Your task to perform on an android device: Open calendar and show me the first week of next month Image 0: 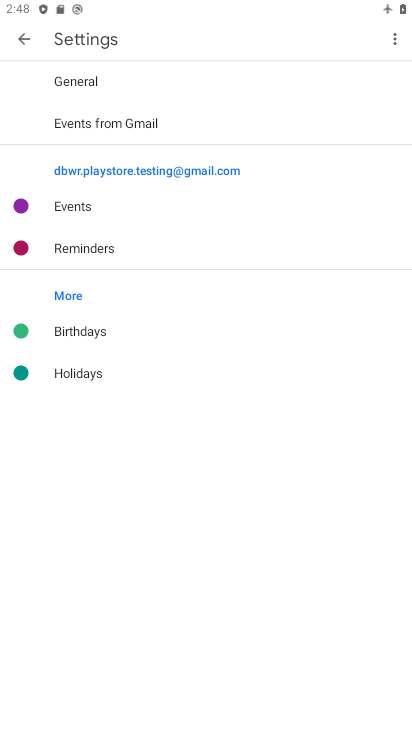
Step 0: click (12, 37)
Your task to perform on an android device: Open calendar and show me the first week of next month Image 1: 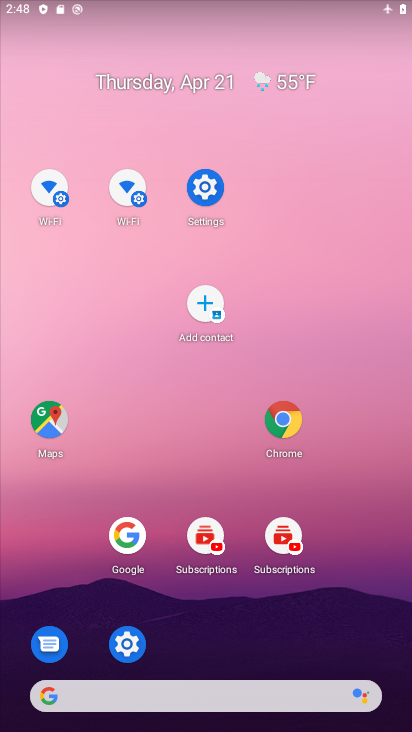
Step 1: drag from (290, 502) to (245, 183)
Your task to perform on an android device: Open calendar and show me the first week of next month Image 2: 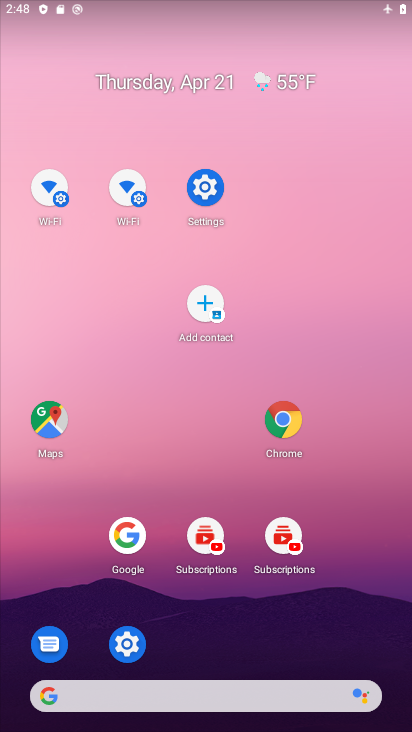
Step 2: drag from (254, 547) to (108, 146)
Your task to perform on an android device: Open calendar and show me the first week of next month Image 3: 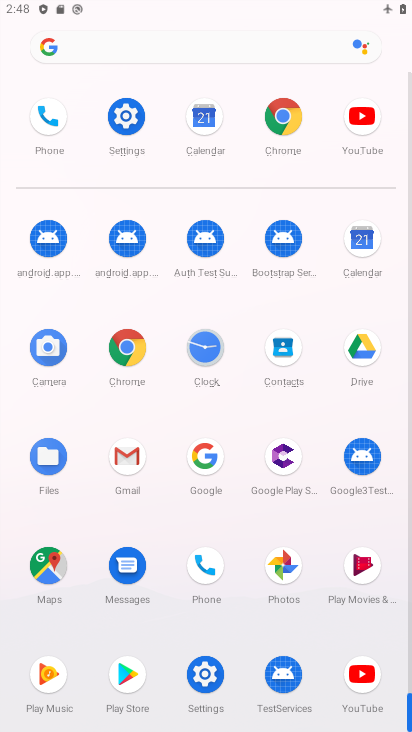
Step 3: drag from (220, 550) to (156, 84)
Your task to perform on an android device: Open calendar and show me the first week of next month Image 4: 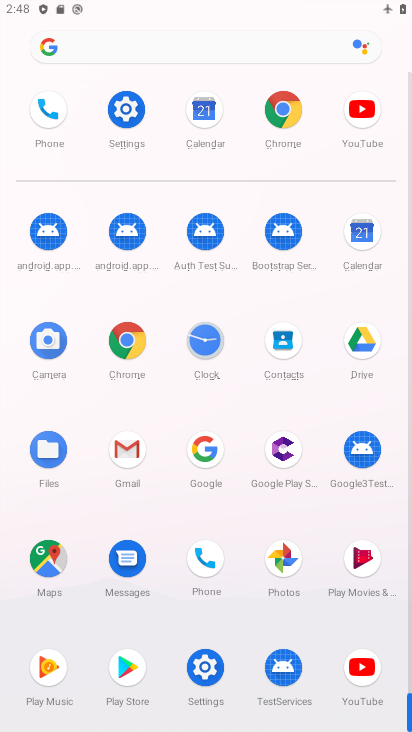
Step 4: click (118, 114)
Your task to perform on an android device: Open calendar and show me the first week of next month Image 5: 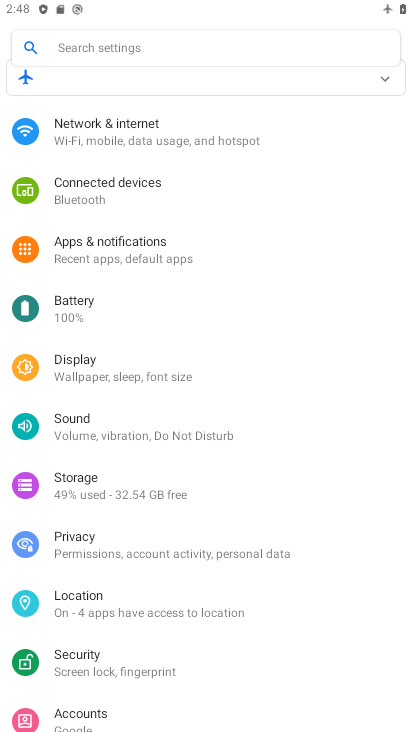
Step 5: click (127, 246)
Your task to perform on an android device: Open calendar and show me the first week of next month Image 6: 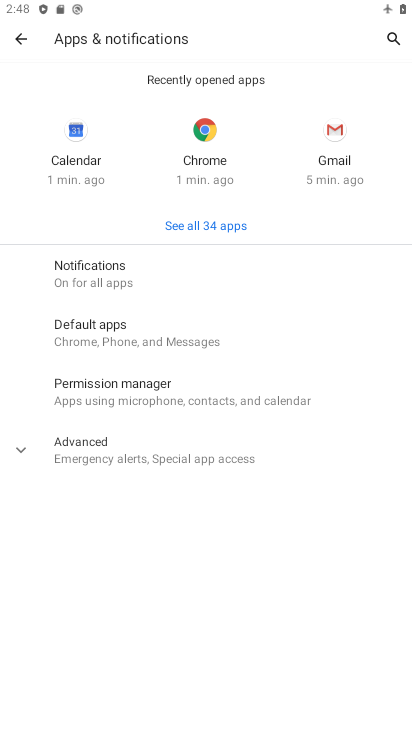
Step 6: click (23, 34)
Your task to perform on an android device: Open calendar and show me the first week of next month Image 7: 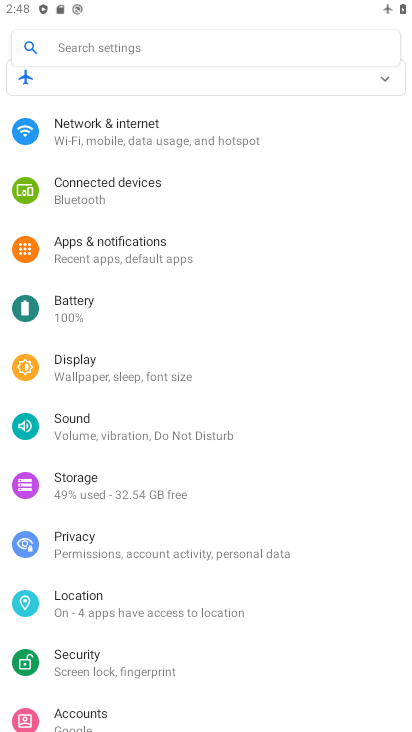
Step 7: press home button
Your task to perform on an android device: Open calendar and show me the first week of next month Image 8: 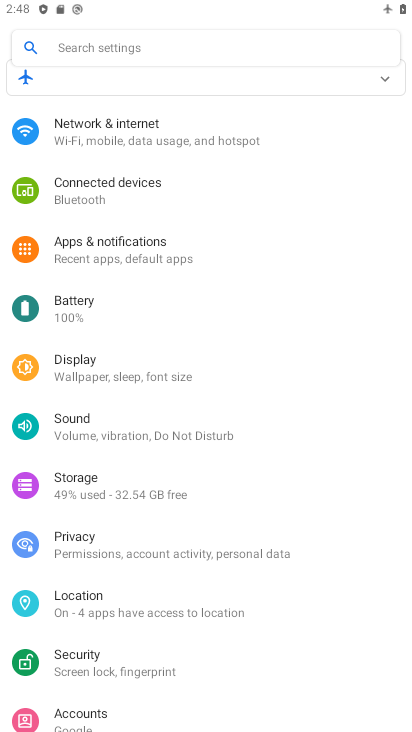
Step 8: press home button
Your task to perform on an android device: Open calendar and show me the first week of next month Image 9: 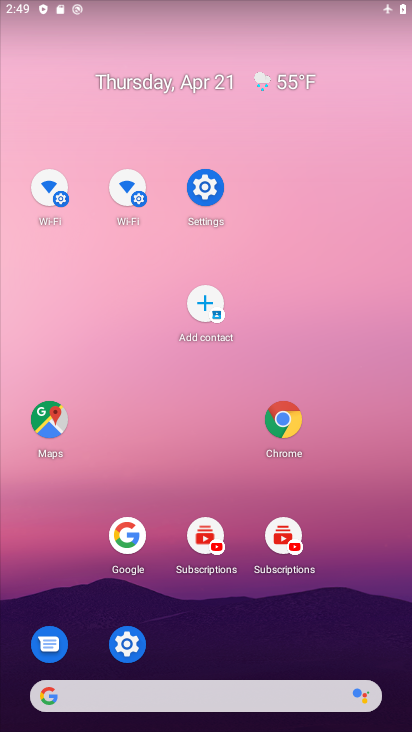
Step 9: drag from (295, 661) to (229, 228)
Your task to perform on an android device: Open calendar and show me the first week of next month Image 10: 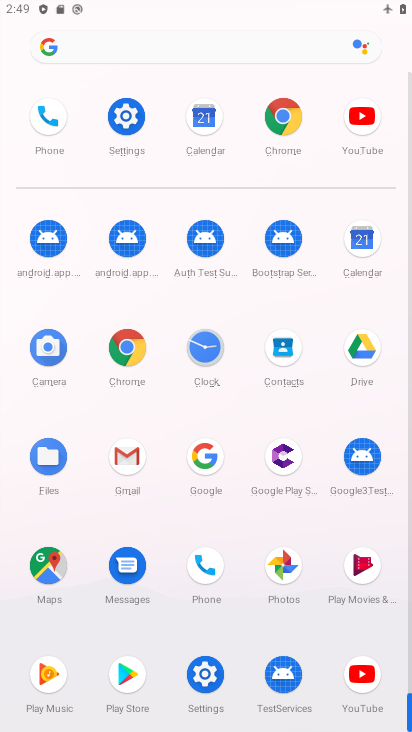
Step 10: click (361, 241)
Your task to perform on an android device: Open calendar and show me the first week of next month Image 11: 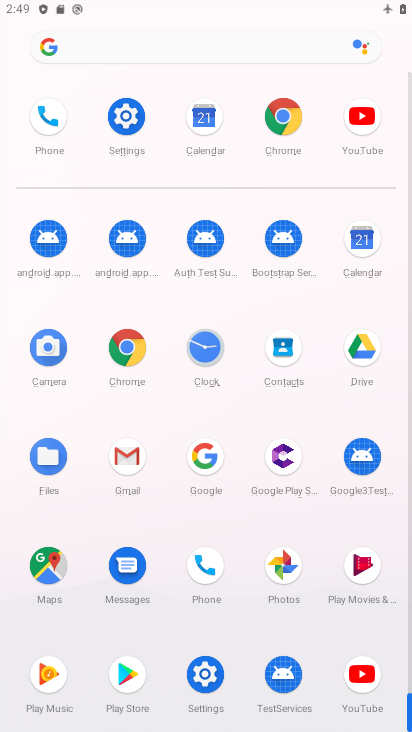
Step 11: click (361, 241)
Your task to perform on an android device: Open calendar and show me the first week of next month Image 12: 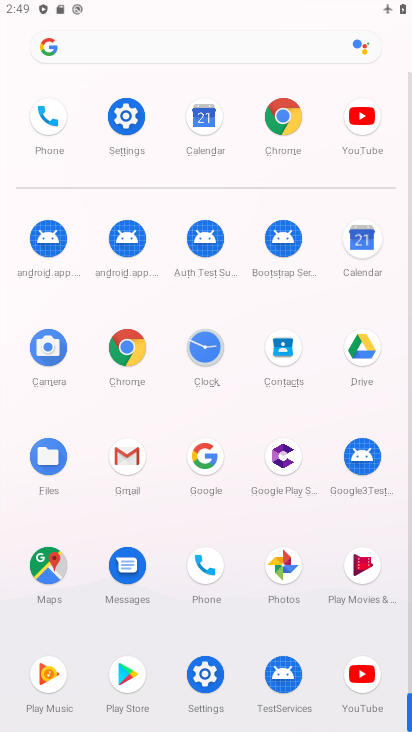
Step 12: click (360, 240)
Your task to perform on an android device: Open calendar and show me the first week of next month Image 13: 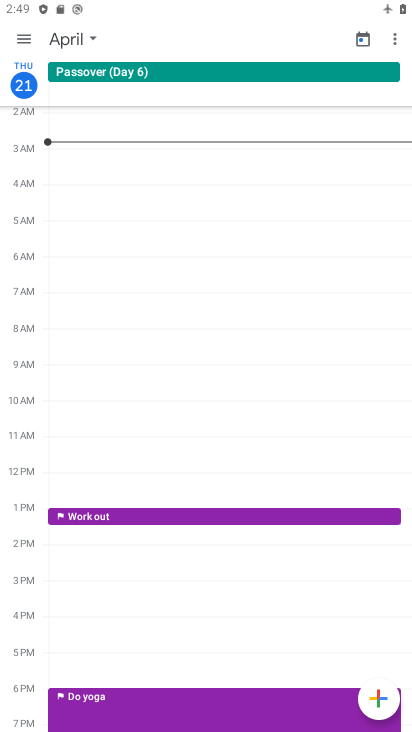
Step 13: press home button
Your task to perform on an android device: Open calendar and show me the first week of next month Image 14: 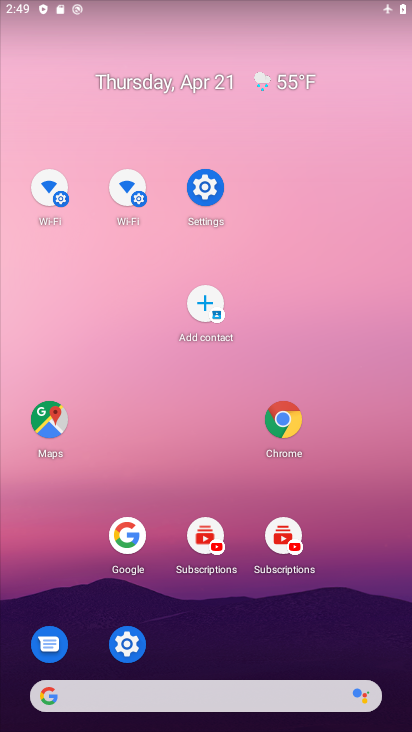
Step 14: drag from (372, 661) to (137, 89)
Your task to perform on an android device: Open calendar and show me the first week of next month Image 15: 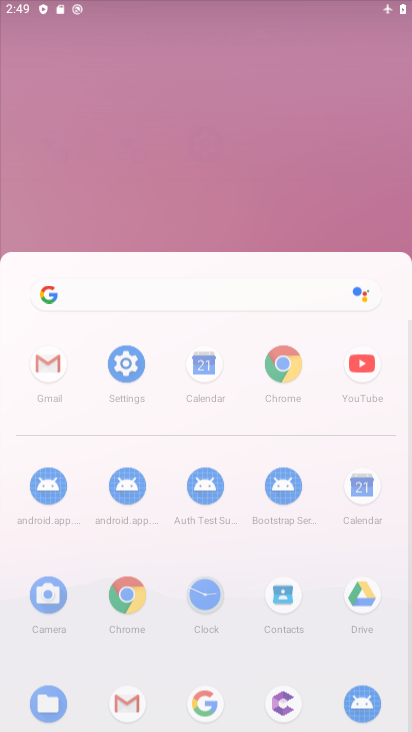
Step 15: drag from (309, 446) to (147, 58)
Your task to perform on an android device: Open calendar and show me the first week of next month Image 16: 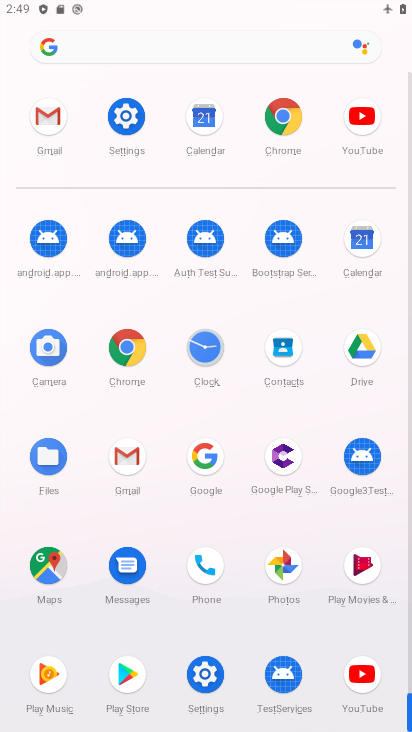
Step 16: click (208, 123)
Your task to perform on an android device: Open calendar and show me the first week of next month Image 17: 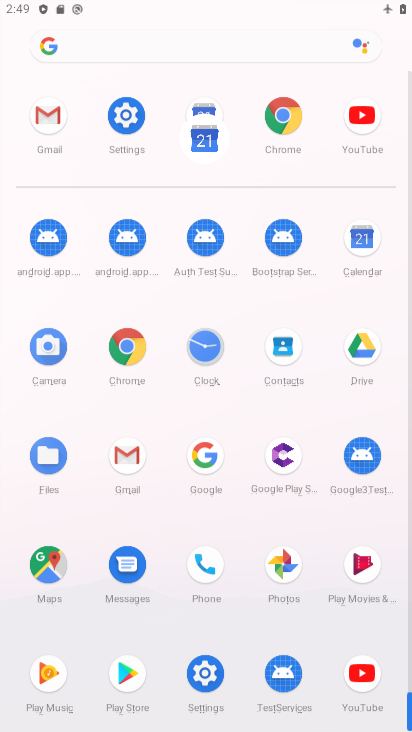
Step 17: click (208, 118)
Your task to perform on an android device: Open calendar and show me the first week of next month Image 18: 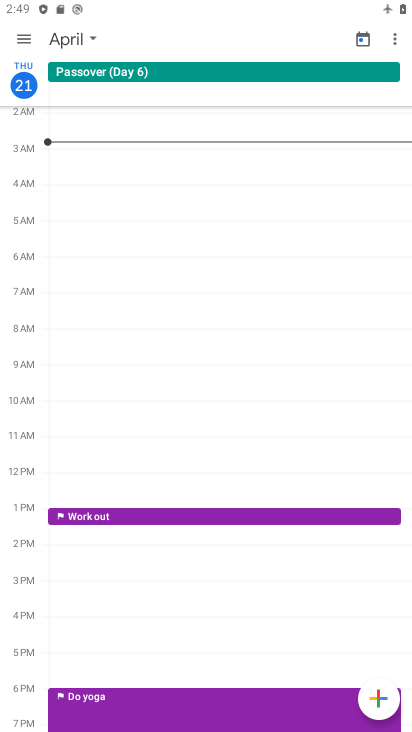
Step 18: click (93, 43)
Your task to perform on an android device: Open calendar and show me the first week of next month Image 19: 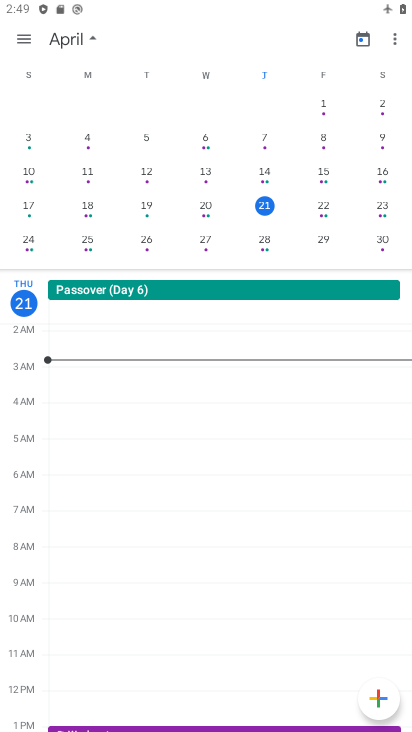
Step 19: click (9, 204)
Your task to perform on an android device: Open calendar and show me the first week of next month Image 20: 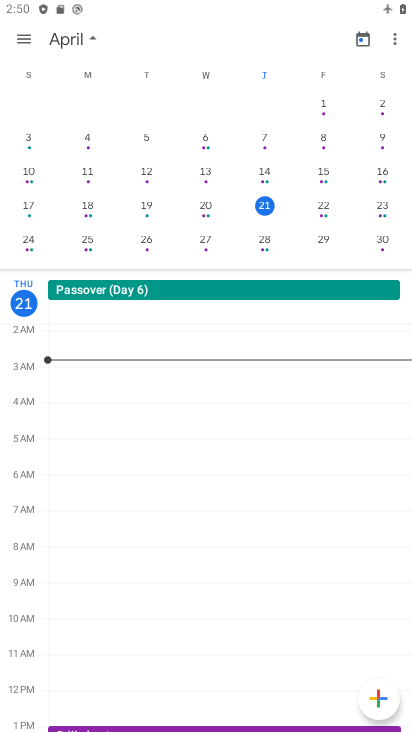
Step 20: drag from (128, 160) to (18, 143)
Your task to perform on an android device: Open calendar and show me the first week of next month Image 21: 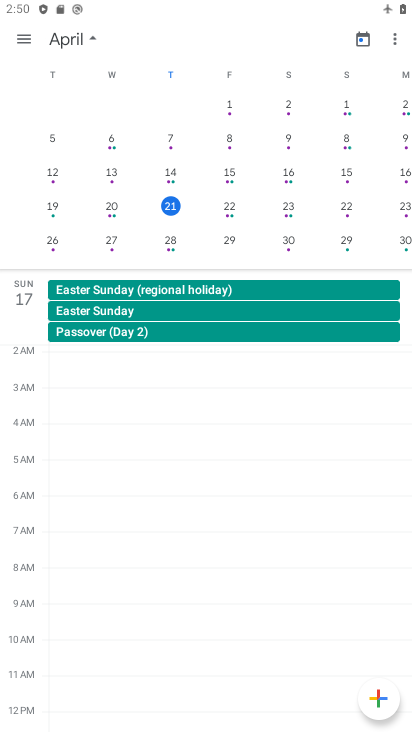
Step 21: drag from (260, 204) to (13, 224)
Your task to perform on an android device: Open calendar and show me the first week of next month Image 22: 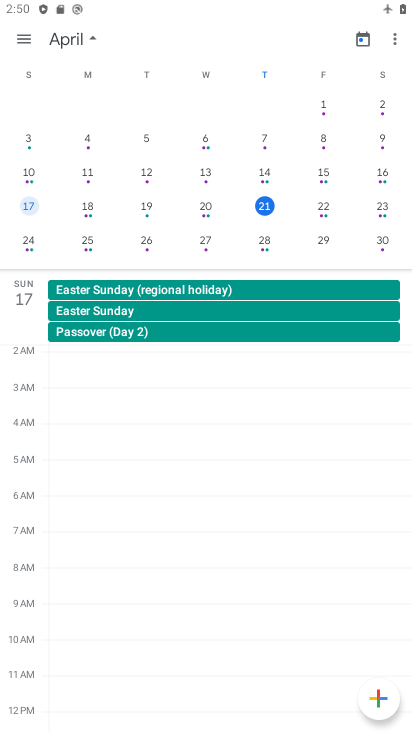
Step 22: drag from (245, 202) to (2, 173)
Your task to perform on an android device: Open calendar and show me the first week of next month Image 23: 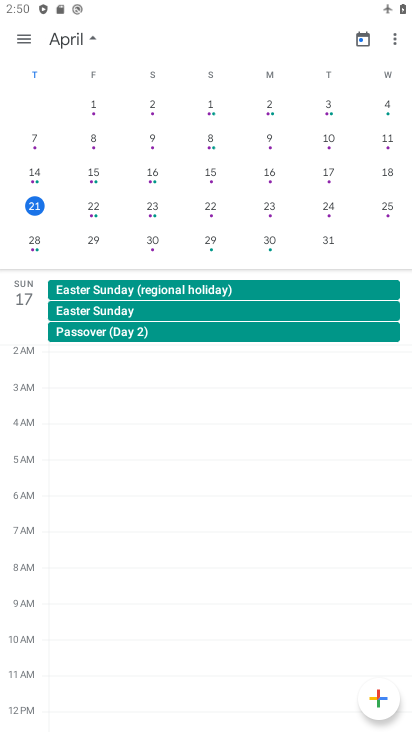
Step 23: drag from (199, 190) to (30, 187)
Your task to perform on an android device: Open calendar and show me the first week of next month Image 24: 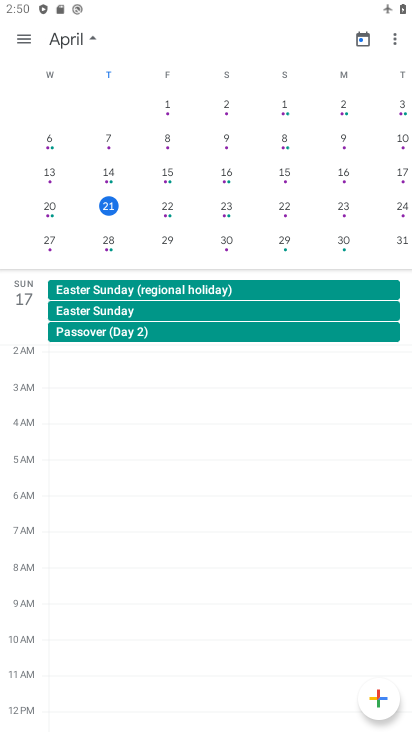
Step 24: drag from (95, 200) to (27, 205)
Your task to perform on an android device: Open calendar and show me the first week of next month Image 25: 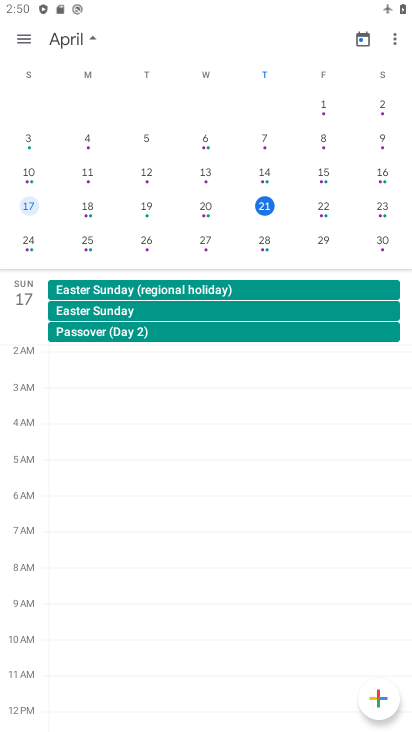
Step 25: drag from (172, 210) to (17, 175)
Your task to perform on an android device: Open calendar and show me the first week of next month Image 26: 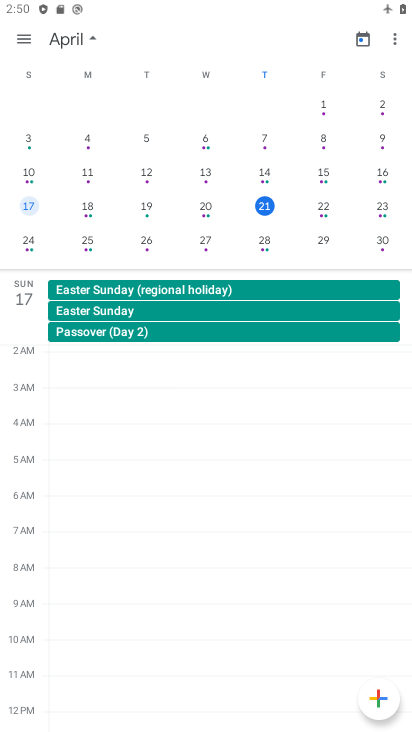
Step 26: click (63, 172)
Your task to perform on an android device: Open calendar and show me the first week of next month Image 27: 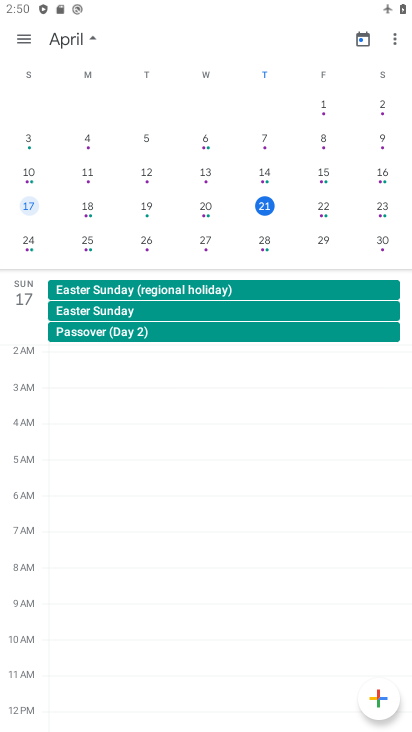
Step 27: drag from (252, 194) to (5, 160)
Your task to perform on an android device: Open calendar and show me the first week of next month Image 28: 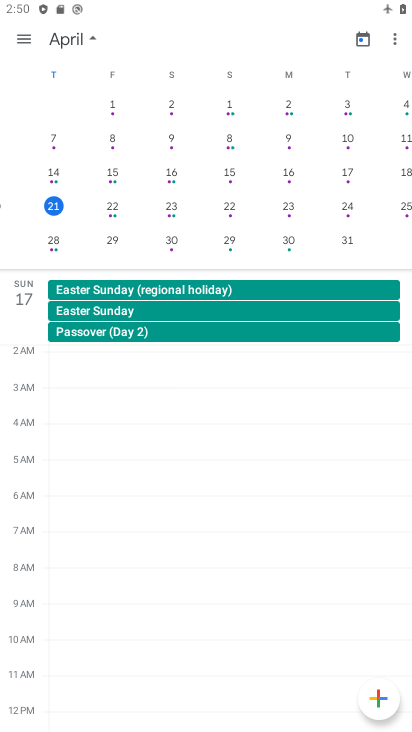
Step 28: drag from (253, 199) to (35, 190)
Your task to perform on an android device: Open calendar and show me the first week of next month Image 29: 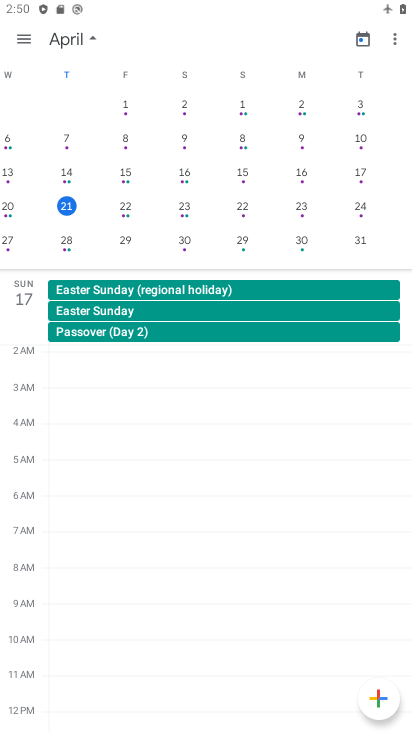
Step 29: drag from (205, 209) to (9, 197)
Your task to perform on an android device: Open calendar and show me the first week of next month Image 30: 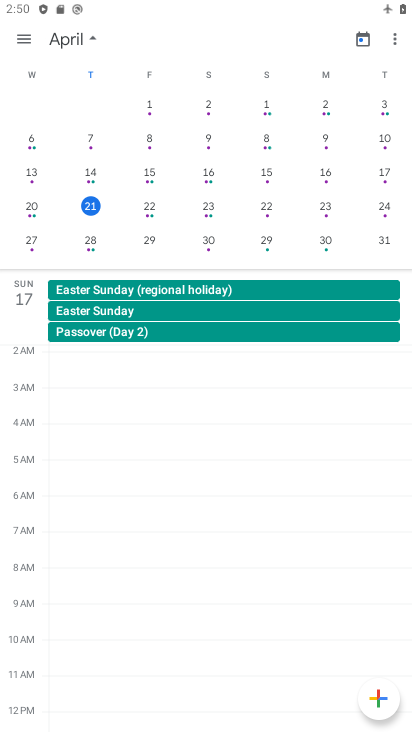
Step 30: drag from (87, 180) to (1, 156)
Your task to perform on an android device: Open calendar and show me the first week of next month Image 31: 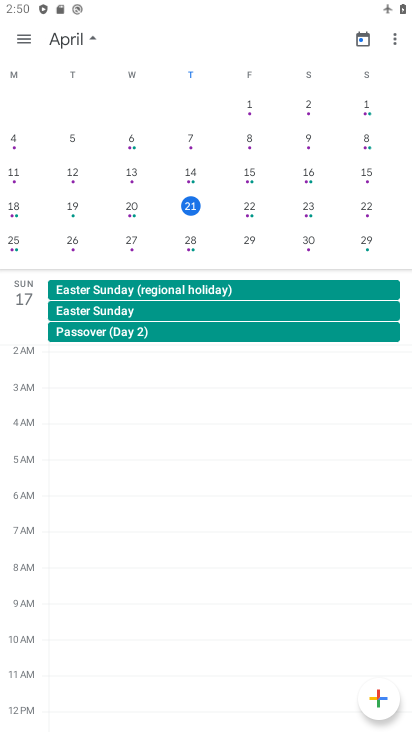
Step 31: drag from (119, 210) to (42, 202)
Your task to perform on an android device: Open calendar and show me the first week of next month Image 32: 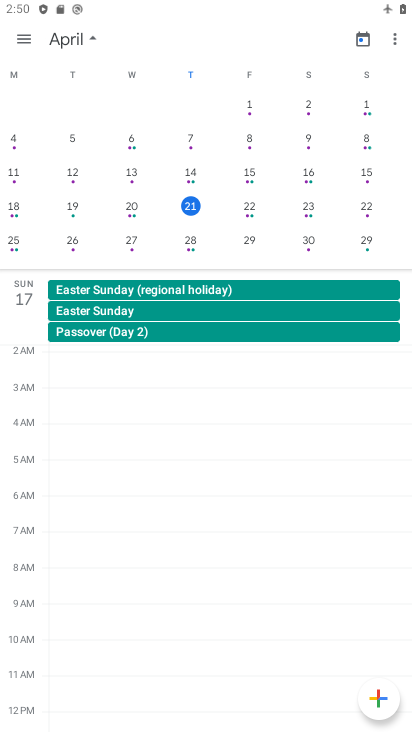
Step 32: drag from (192, 178) to (11, 171)
Your task to perform on an android device: Open calendar and show me the first week of next month Image 33: 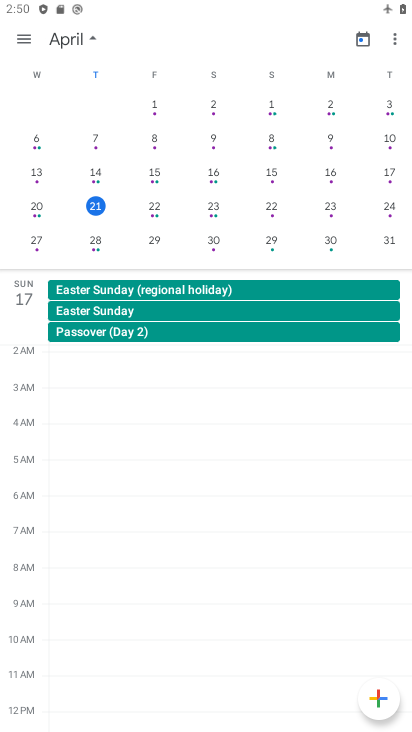
Step 33: click (42, 174)
Your task to perform on an android device: Open calendar and show me the first week of next month Image 34: 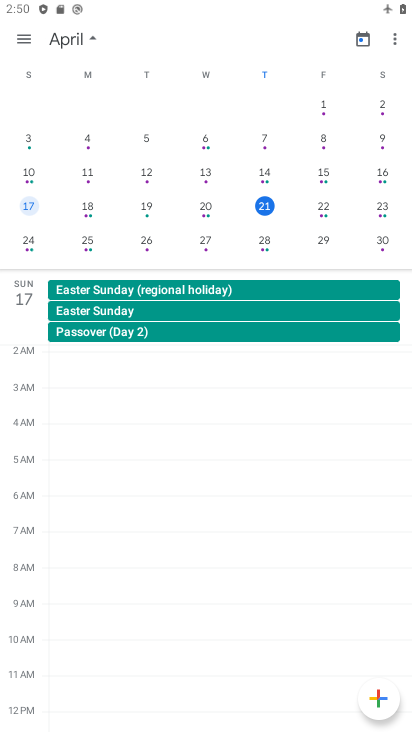
Step 34: drag from (110, 220) to (74, 213)
Your task to perform on an android device: Open calendar and show me the first week of next month Image 35: 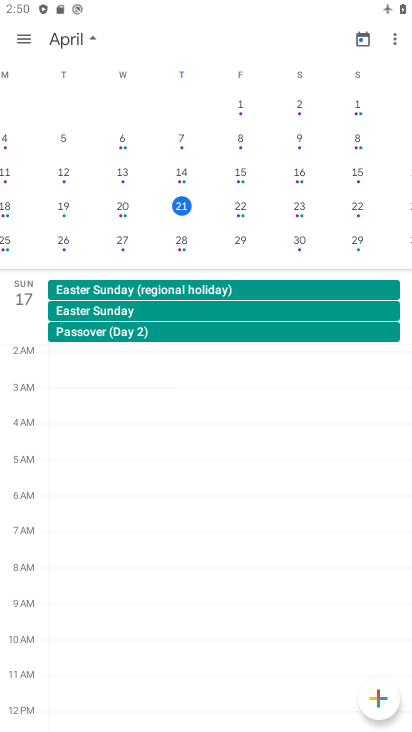
Step 35: drag from (273, 210) to (36, 183)
Your task to perform on an android device: Open calendar and show me the first week of next month Image 36: 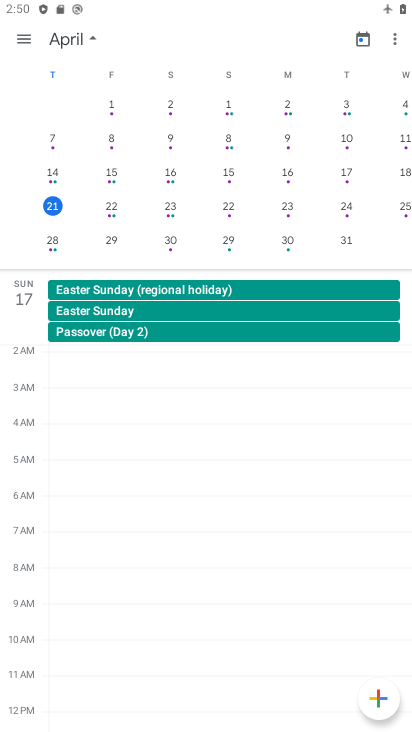
Step 36: drag from (115, 197) to (11, 193)
Your task to perform on an android device: Open calendar and show me the first week of next month Image 37: 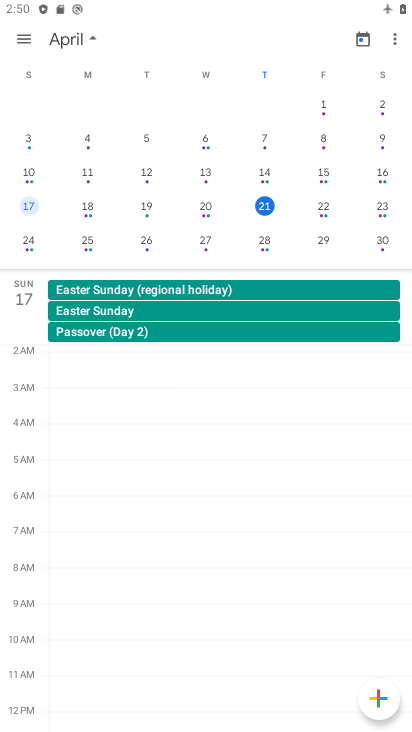
Step 37: drag from (149, 175) to (5, 169)
Your task to perform on an android device: Open calendar and show me the first week of next month Image 38: 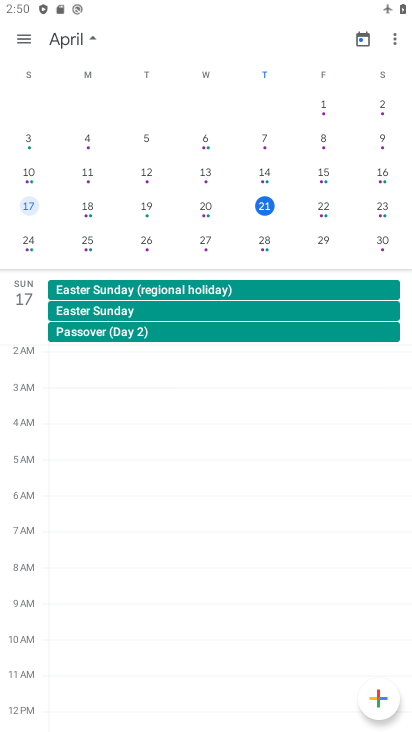
Step 38: drag from (235, 203) to (20, 217)
Your task to perform on an android device: Open calendar and show me the first week of next month Image 39: 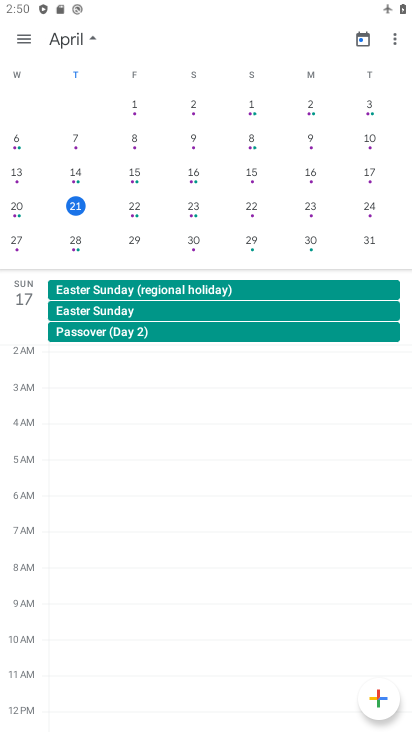
Step 39: click (54, 206)
Your task to perform on an android device: Open calendar and show me the first week of next month Image 40: 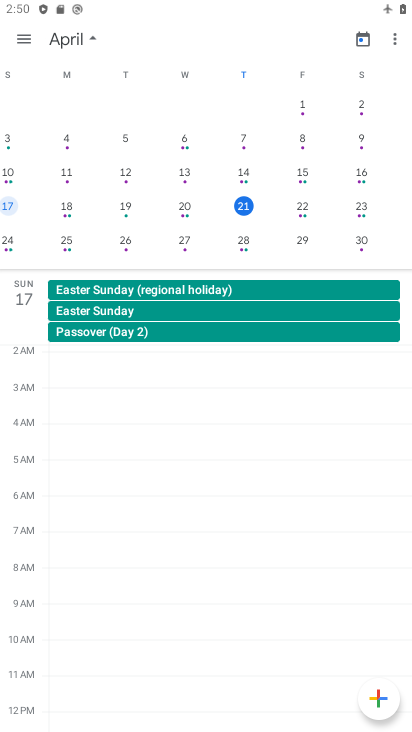
Step 40: drag from (166, 196) to (2, 234)
Your task to perform on an android device: Open calendar and show me the first week of next month Image 41: 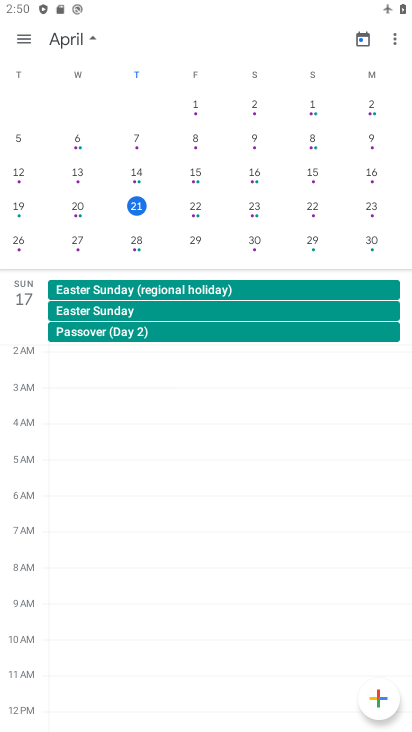
Step 41: drag from (147, 196) to (48, 206)
Your task to perform on an android device: Open calendar and show me the first week of next month Image 42: 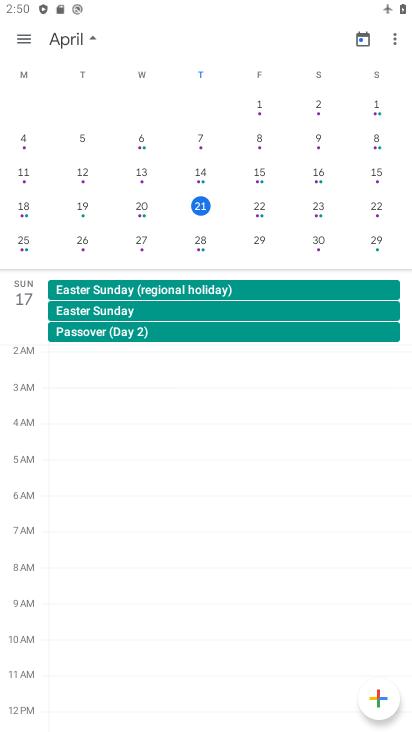
Step 42: click (12, 183)
Your task to perform on an android device: Open calendar and show me the first week of next month Image 43: 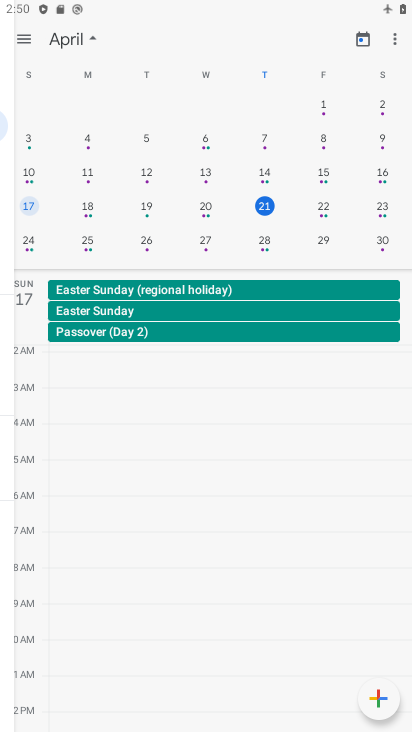
Step 43: drag from (7, 184) to (54, 195)
Your task to perform on an android device: Open calendar and show me the first week of next month Image 44: 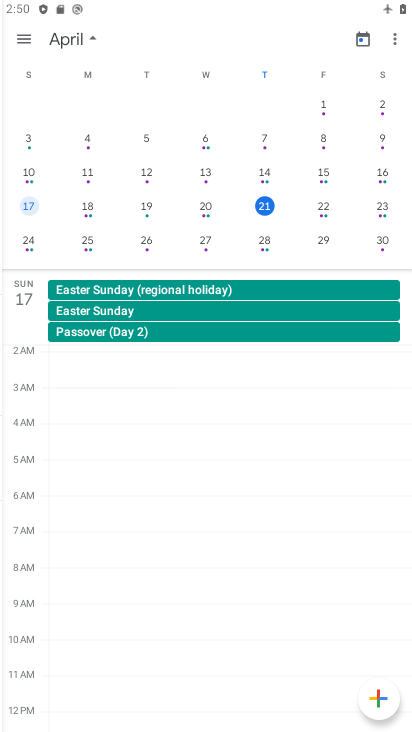
Step 44: click (39, 197)
Your task to perform on an android device: Open calendar and show me the first week of next month Image 45: 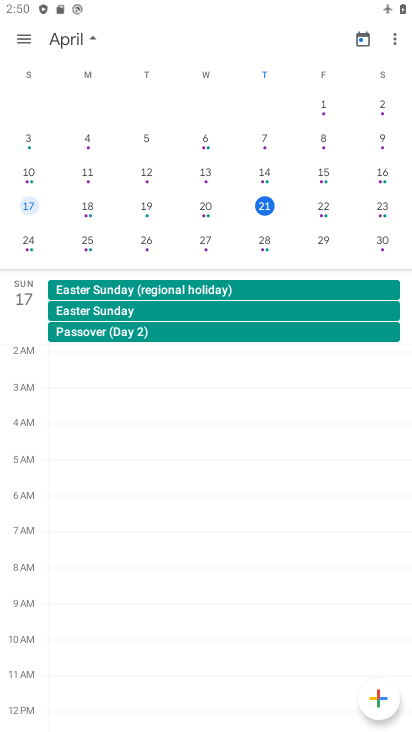
Step 45: drag from (143, 201) to (11, 221)
Your task to perform on an android device: Open calendar and show me the first week of next month Image 46: 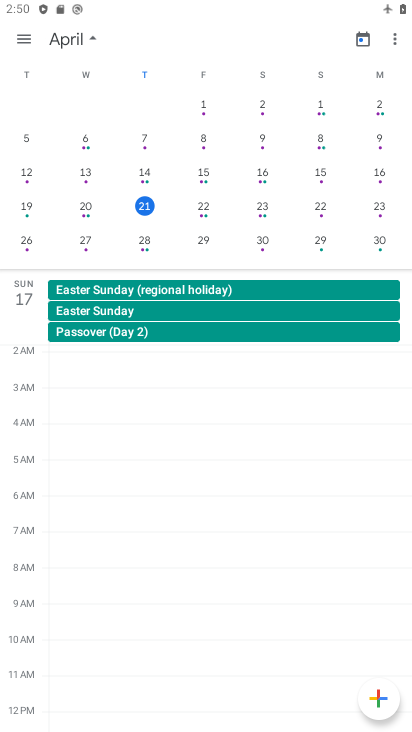
Step 46: drag from (283, 225) to (2, 212)
Your task to perform on an android device: Open calendar and show me the first week of next month Image 47: 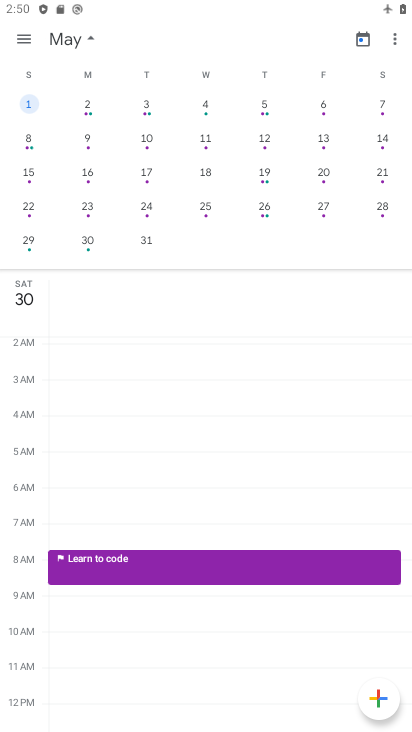
Step 47: click (92, 240)
Your task to perform on an android device: Open calendar and show me the first week of next month Image 48: 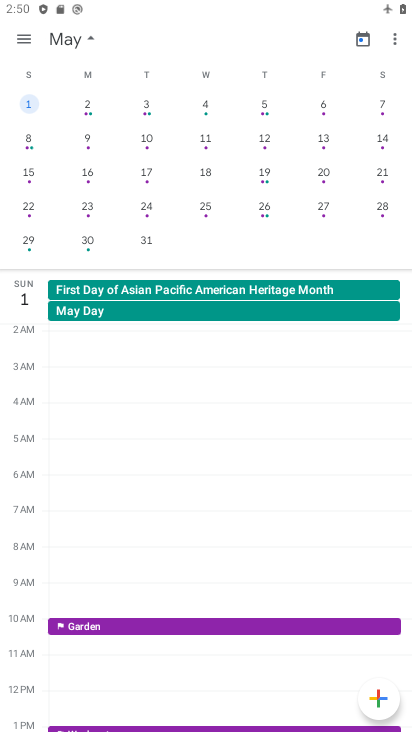
Step 48: drag from (111, 194) to (0, 195)
Your task to perform on an android device: Open calendar and show me the first week of next month Image 49: 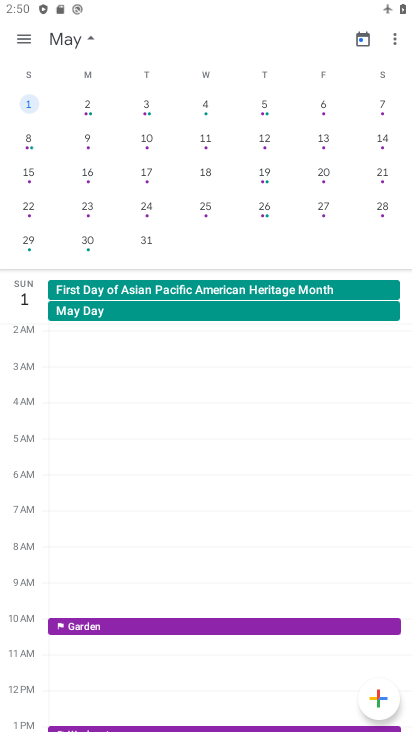
Step 49: drag from (77, 225) to (25, 244)
Your task to perform on an android device: Open calendar and show me the first week of next month Image 50: 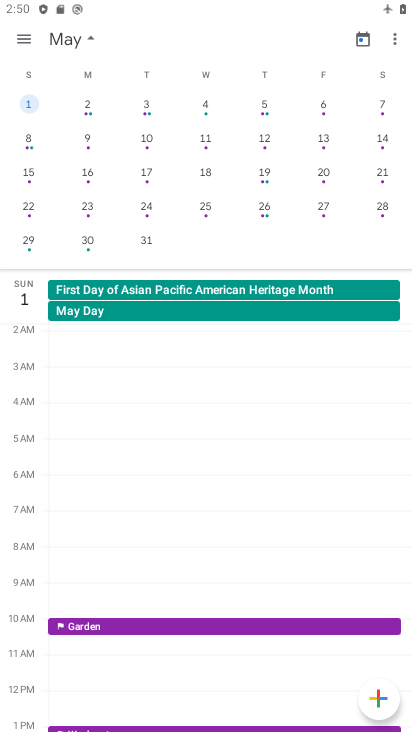
Step 50: click (85, 207)
Your task to perform on an android device: Open calendar and show me the first week of next month Image 51: 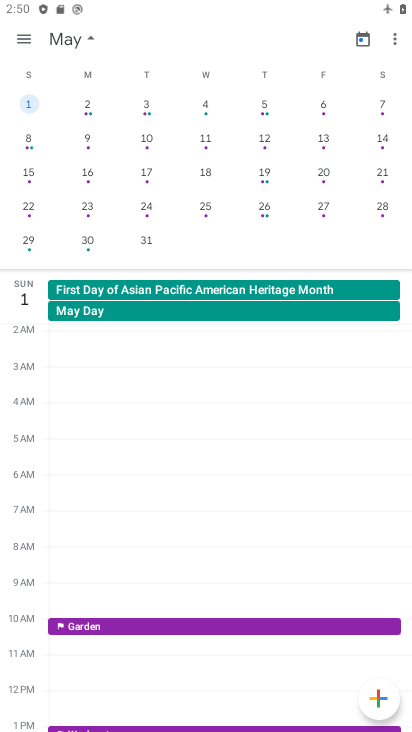
Step 51: click (85, 207)
Your task to perform on an android device: Open calendar and show me the first week of next month Image 52: 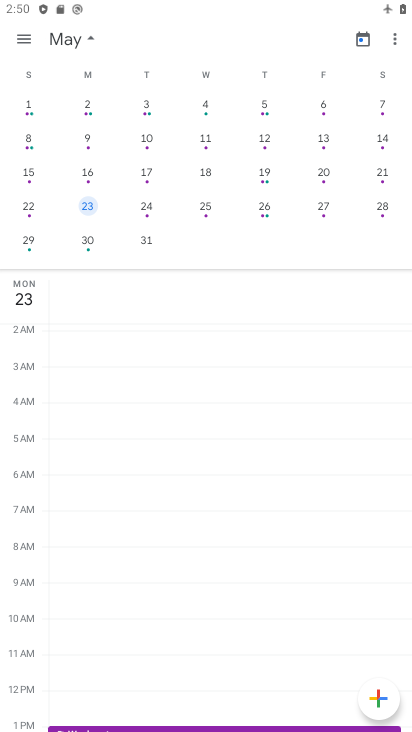
Step 52: click (85, 207)
Your task to perform on an android device: Open calendar and show me the first week of next month Image 53: 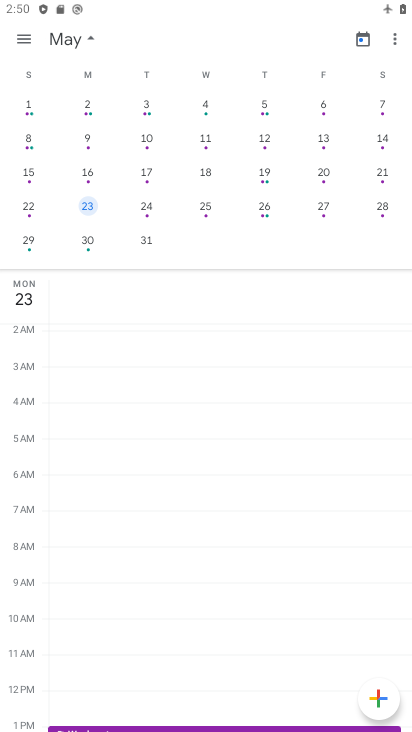
Step 53: task complete